Your task to perform on an android device: turn smart compose on in the gmail app Image 0: 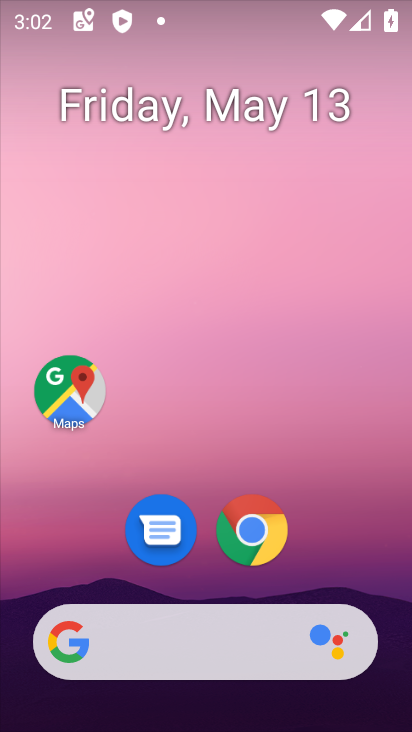
Step 0: drag from (372, 502) to (232, 58)
Your task to perform on an android device: turn smart compose on in the gmail app Image 1: 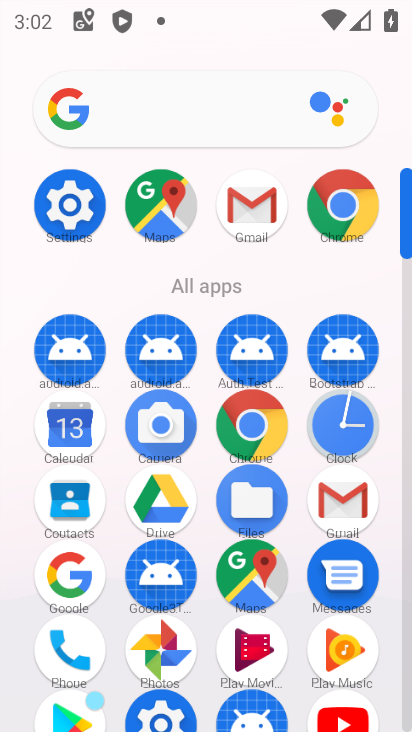
Step 1: click (253, 212)
Your task to perform on an android device: turn smart compose on in the gmail app Image 2: 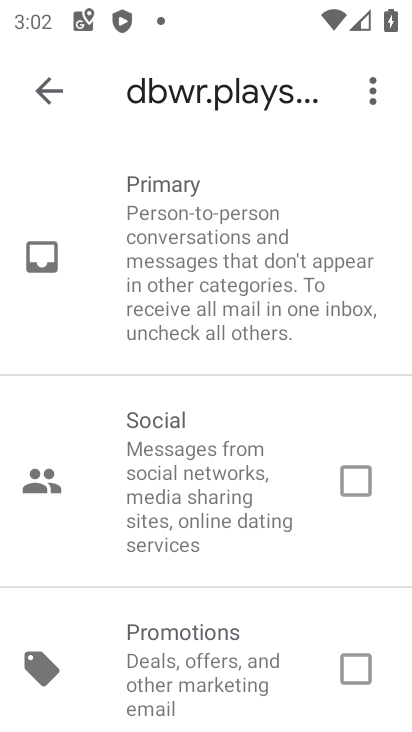
Step 2: click (42, 91)
Your task to perform on an android device: turn smart compose on in the gmail app Image 3: 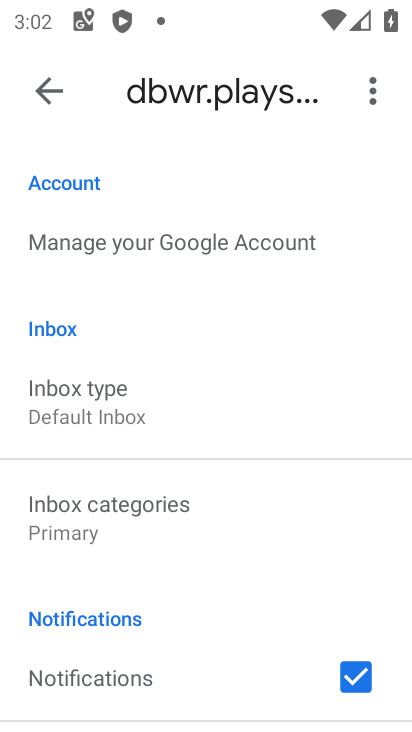
Step 3: drag from (220, 228) to (313, 660)
Your task to perform on an android device: turn smart compose on in the gmail app Image 4: 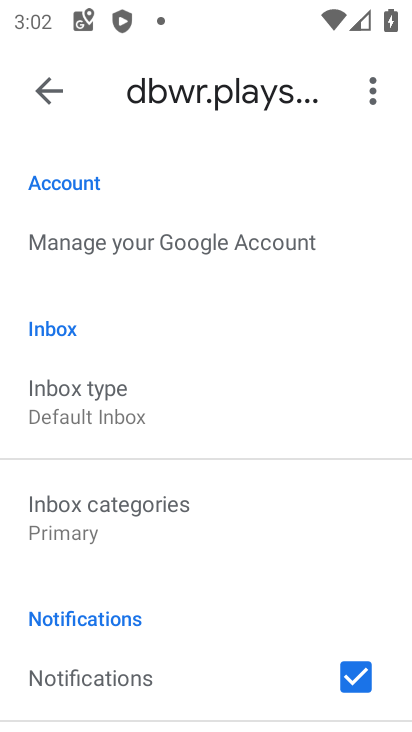
Step 4: click (35, 79)
Your task to perform on an android device: turn smart compose on in the gmail app Image 5: 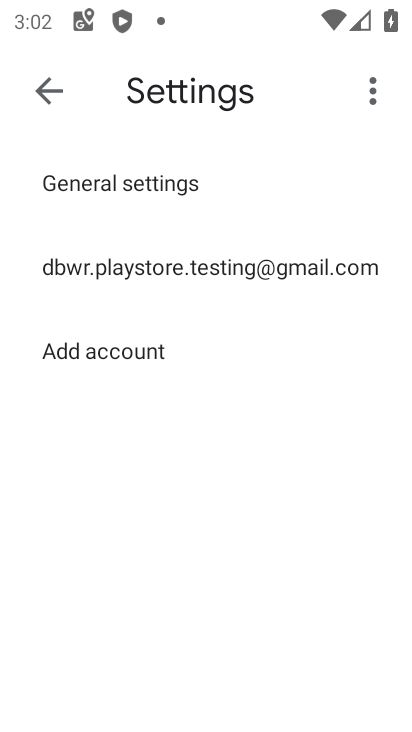
Step 5: click (172, 265)
Your task to perform on an android device: turn smart compose on in the gmail app Image 6: 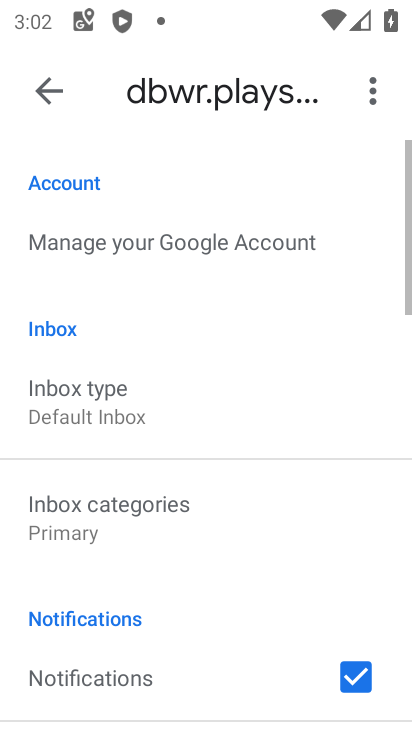
Step 6: task complete